Your task to perform on an android device: When is my next appointment? Image 0: 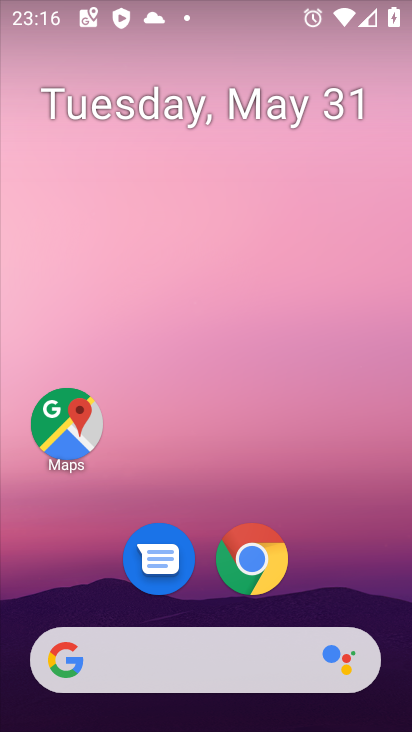
Step 0: drag from (309, 593) to (333, 64)
Your task to perform on an android device: When is my next appointment? Image 1: 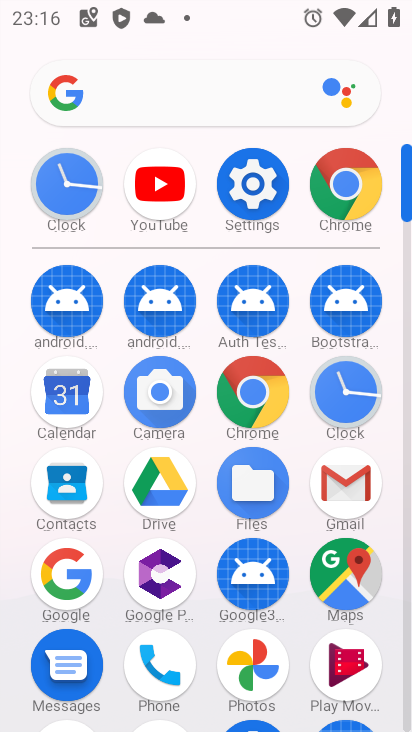
Step 1: click (67, 392)
Your task to perform on an android device: When is my next appointment? Image 2: 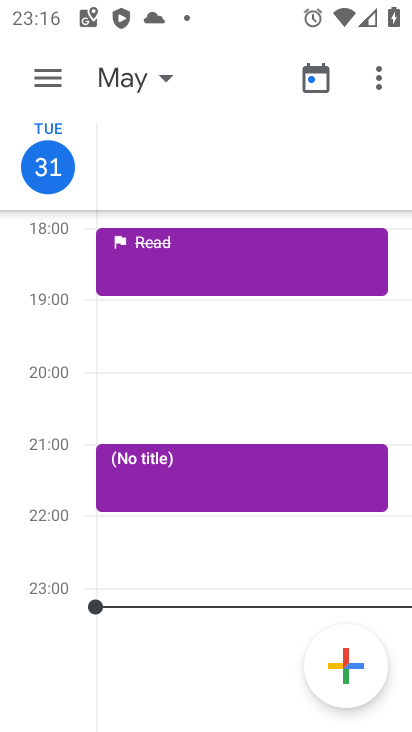
Step 2: click (157, 80)
Your task to perform on an android device: When is my next appointment? Image 3: 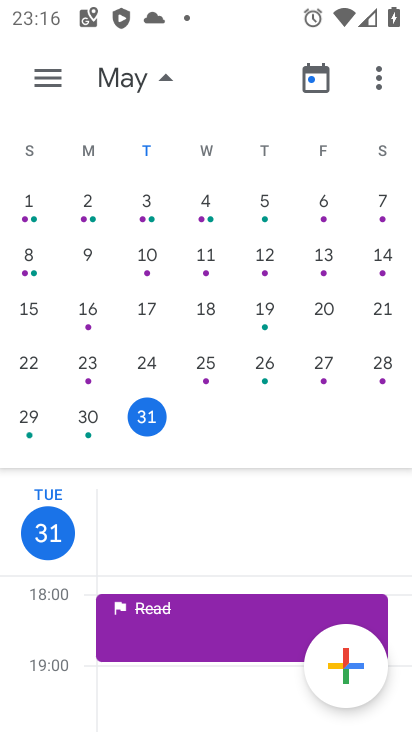
Step 3: drag from (378, 437) to (13, 376)
Your task to perform on an android device: When is my next appointment? Image 4: 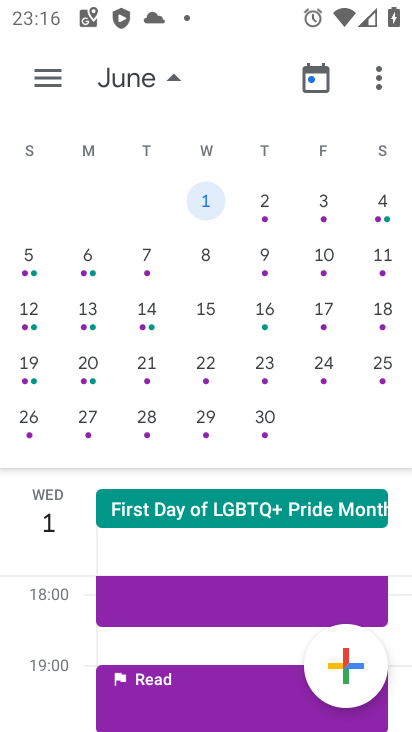
Step 4: click (205, 195)
Your task to perform on an android device: When is my next appointment? Image 5: 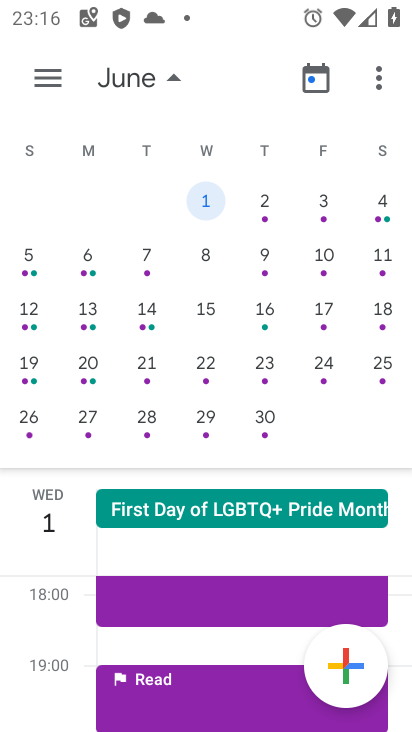
Step 5: task complete